Your task to perform on an android device: Search for razer blade on costco, select the first entry, and add it to the cart. Image 0: 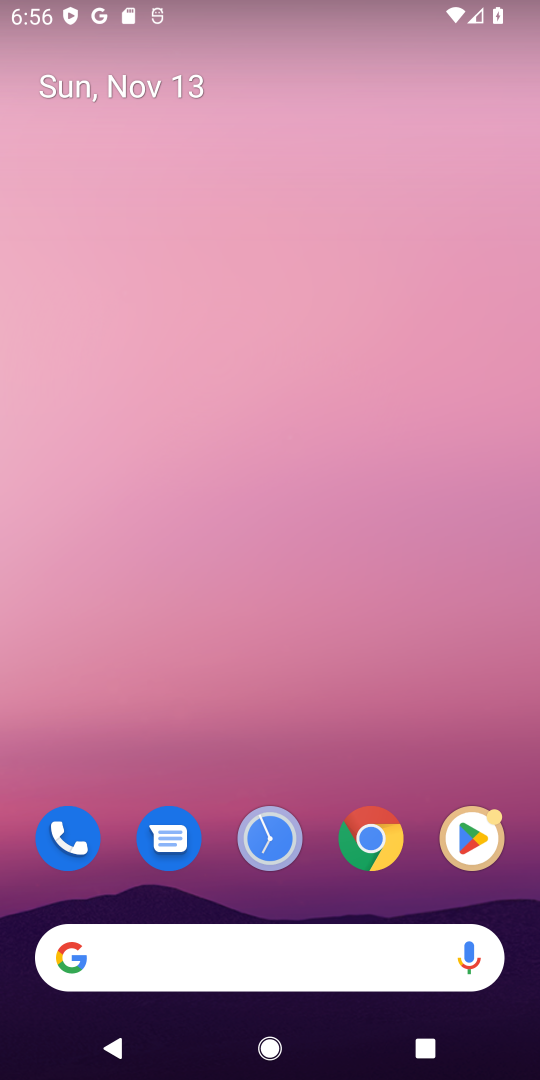
Step 0: click (380, 850)
Your task to perform on an android device: Search for razer blade on costco, select the first entry, and add it to the cart. Image 1: 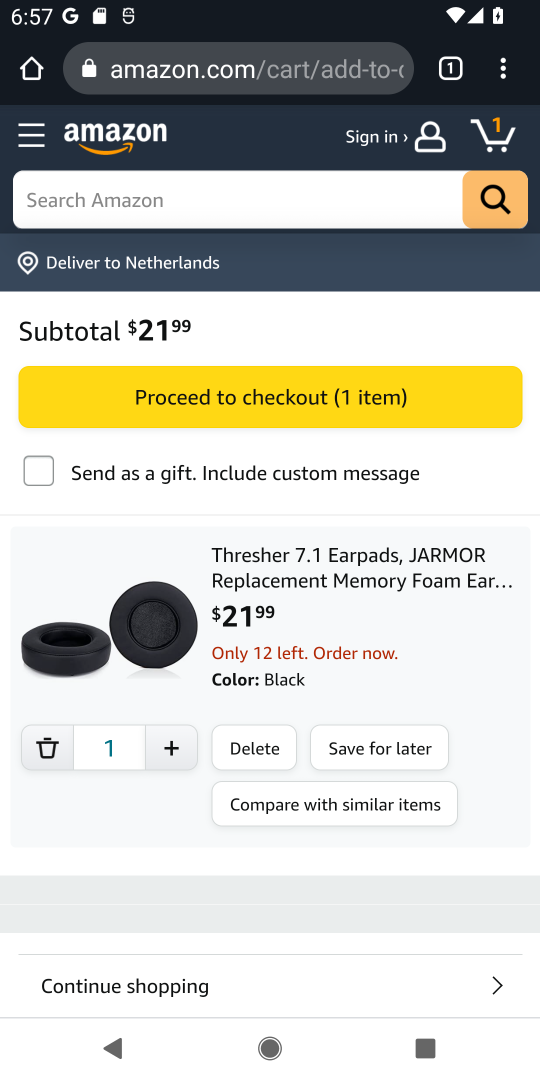
Step 1: click (448, 70)
Your task to perform on an android device: Search for razer blade on costco, select the first entry, and add it to the cart. Image 2: 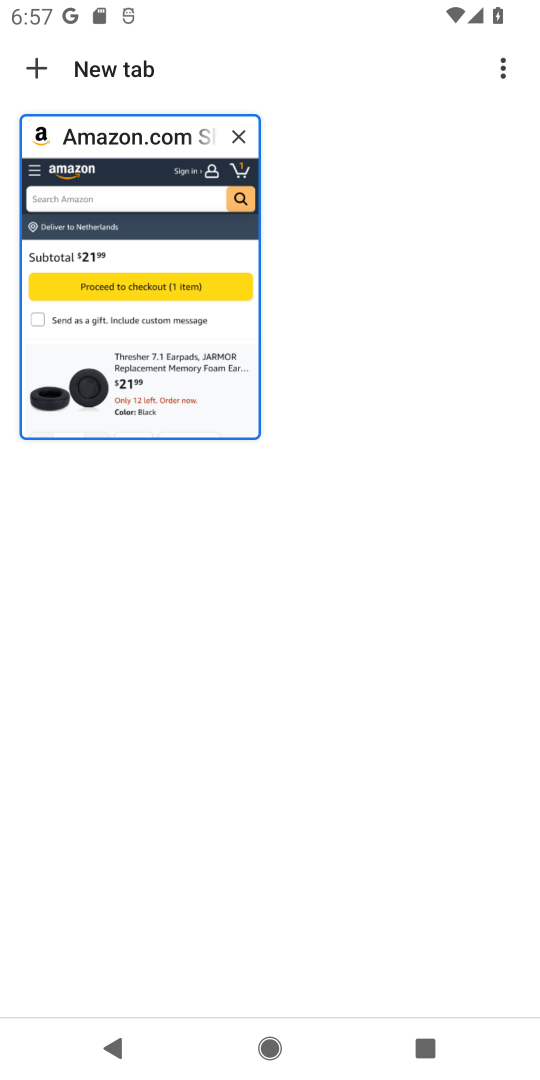
Step 2: click (34, 60)
Your task to perform on an android device: Search for razer blade on costco, select the first entry, and add it to the cart. Image 3: 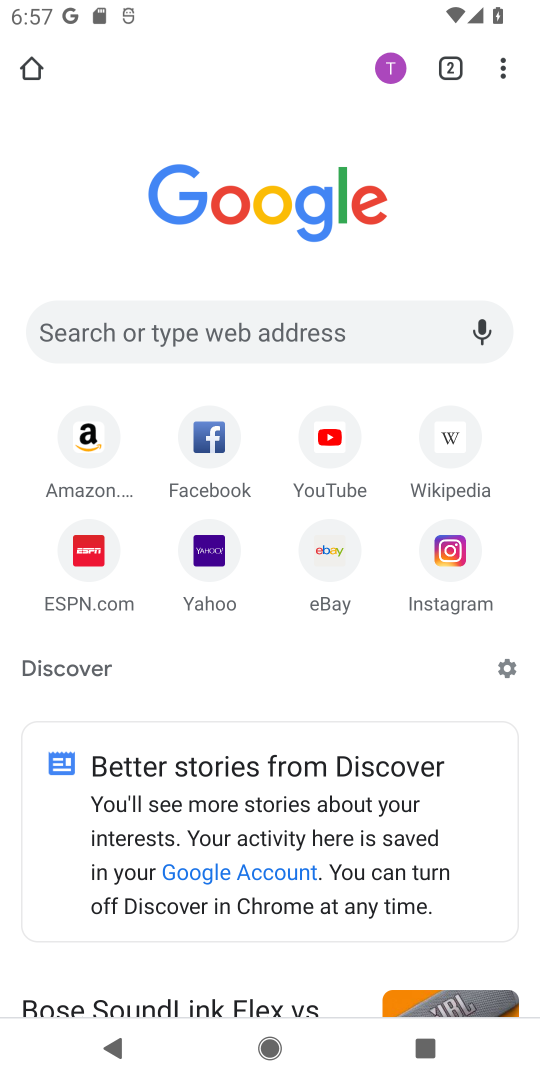
Step 3: click (188, 344)
Your task to perform on an android device: Search for razer blade on costco, select the first entry, and add it to the cart. Image 4: 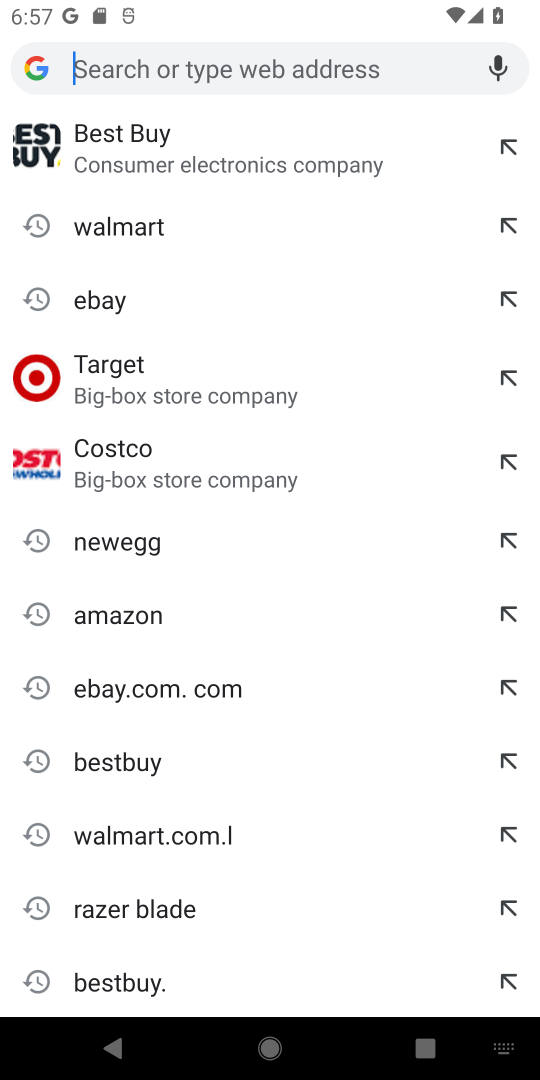
Step 4: click (143, 447)
Your task to perform on an android device: Search for razer blade on costco, select the first entry, and add it to the cart. Image 5: 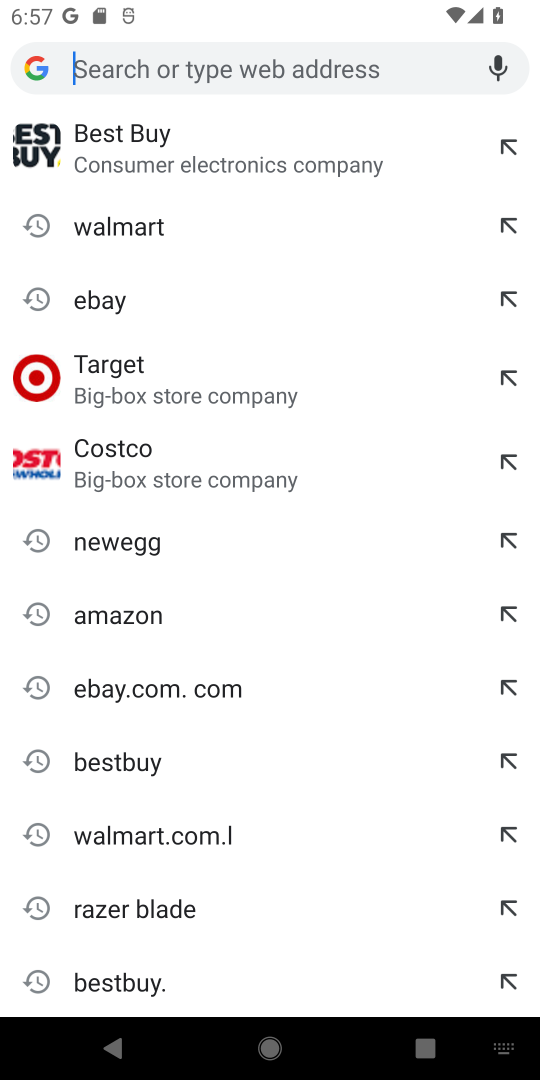
Step 5: click (121, 487)
Your task to perform on an android device: Search for razer blade on costco, select the first entry, and add it to the cart. Image 6: 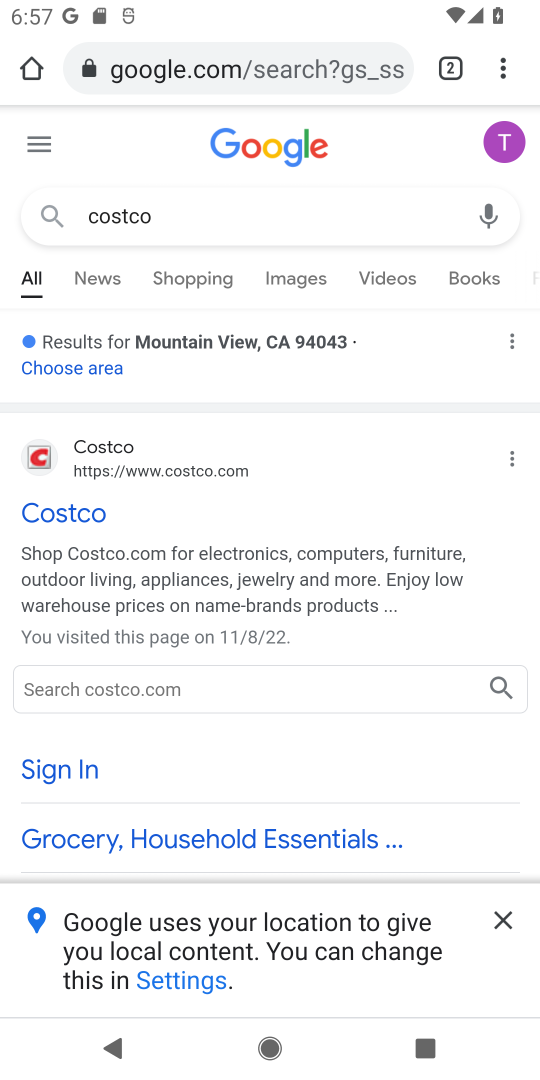
Step 6: click (57, 515)
Your task to perform on an android device: Search for razer blade on costco, select the first entry, and add it to the cart. Image 7: 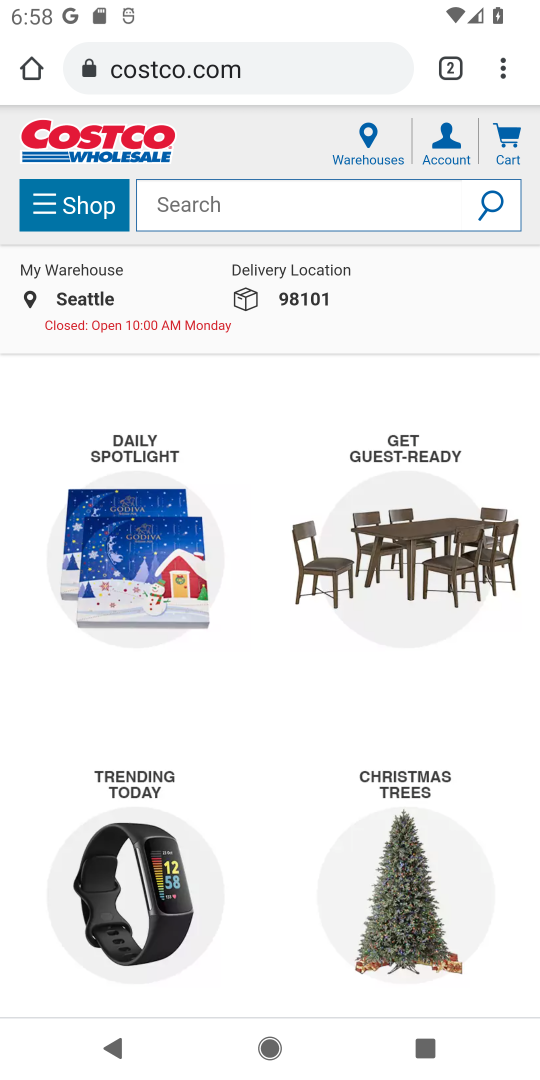
Step 7: click (201, 208)
Your task to perform on an android device: Search for razer blade on costco, select the first entry, and add it to the cart. Image 8: 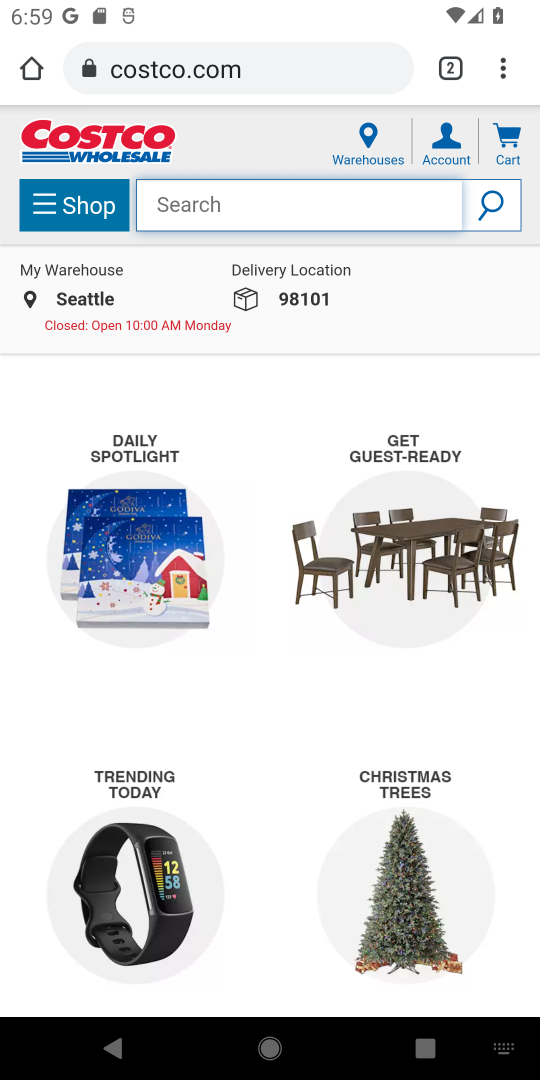
Step 8: click (217, 214)
Your task to perform on an android device: Search for razer blade on costco, select the first entry, and add it to the cart. Image 9: 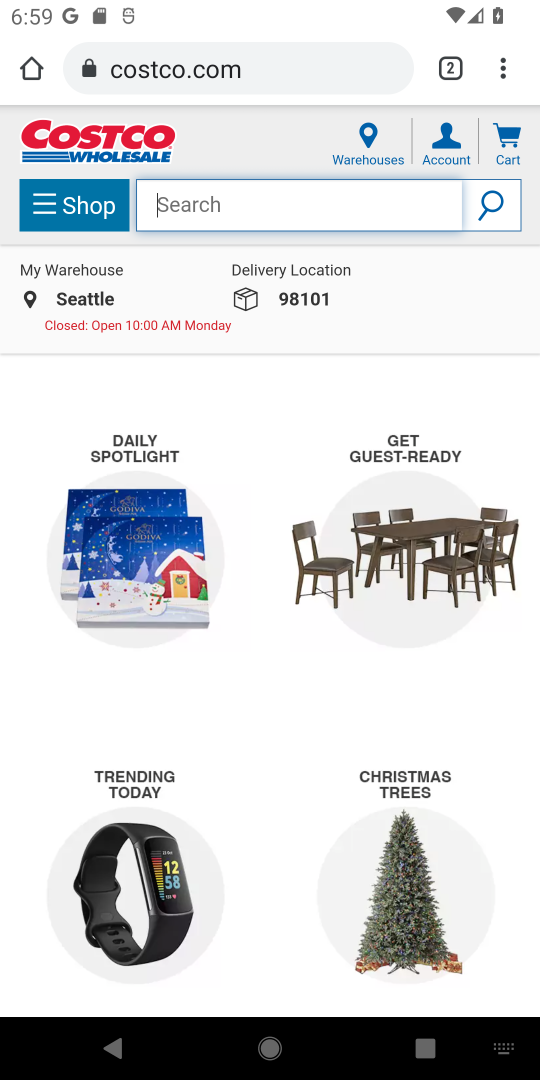
Step 9: type " razer blade"
Your task to perform on an android device: Search for razer blade on costco, select the first entry, and add it to the cart. Image 10: 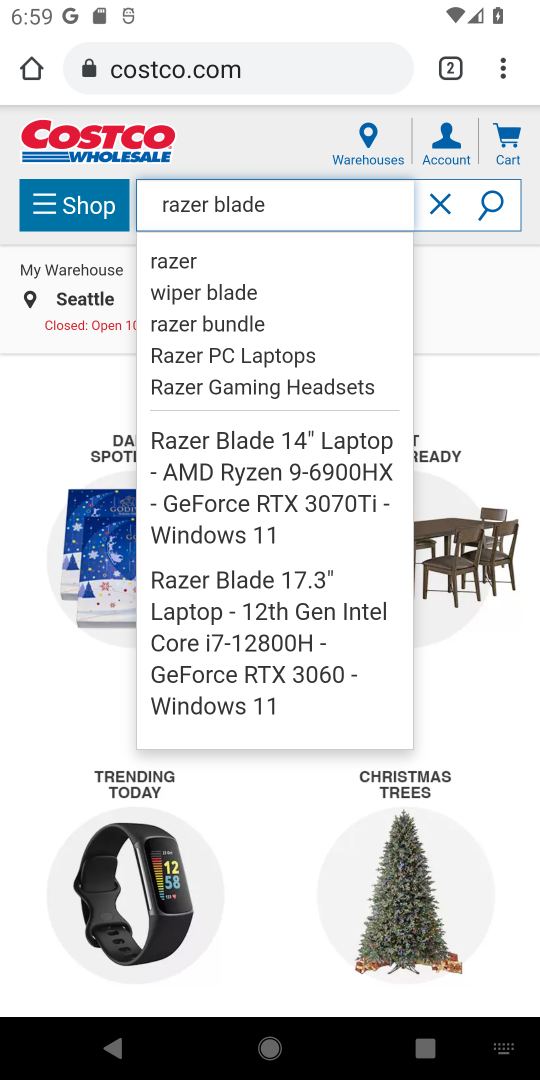
Step 10: click (199, 266)
Your task to perform on an android device: Search for razer blade on costco, select the first entry, and add it to the cart. Image 11: 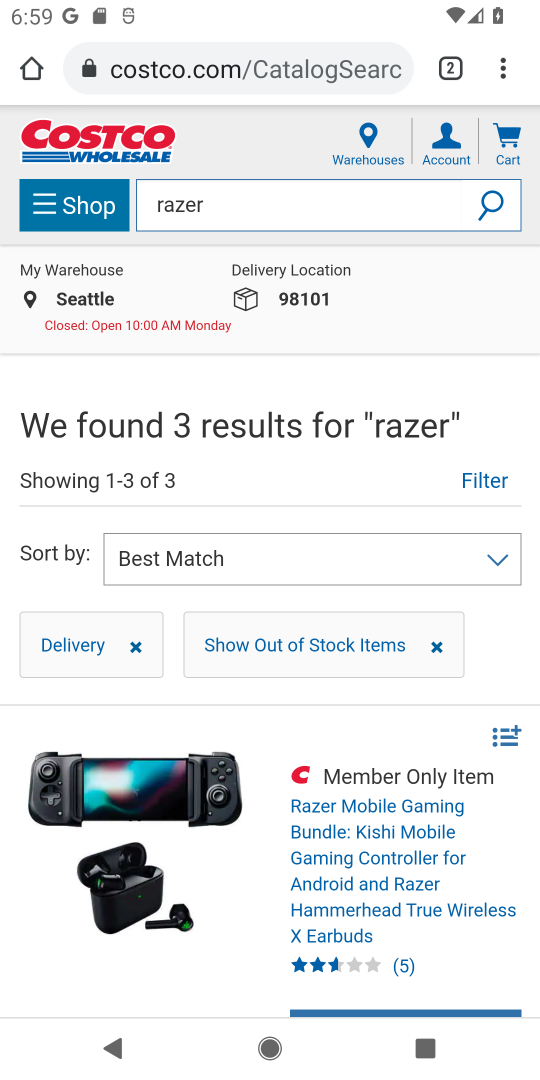
Step 11: task complete